Your task to perform on an android device: Is it going to rain this weekend? Image 0: 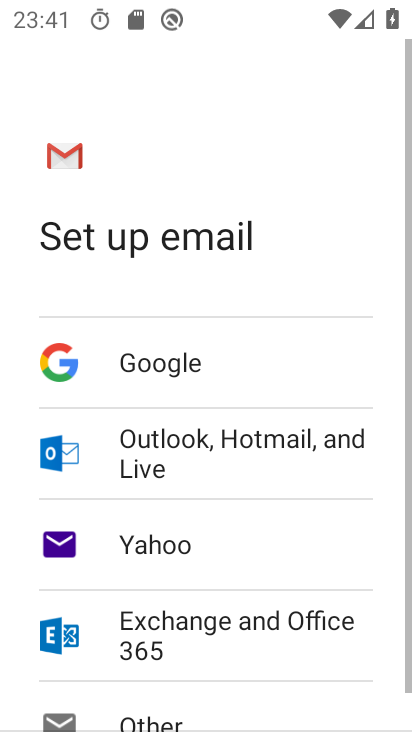
Step 0: press home button
Your task to perform on an android device: Is it going to rain this weekend? Image 1: 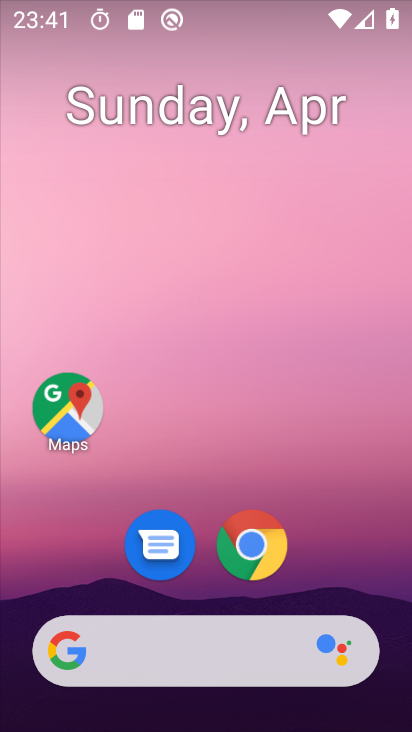
Step 1: drag from (326, 542) to (326, 315)
Your task to perform on an android device: Is it going to rain this weekend? Image 2: 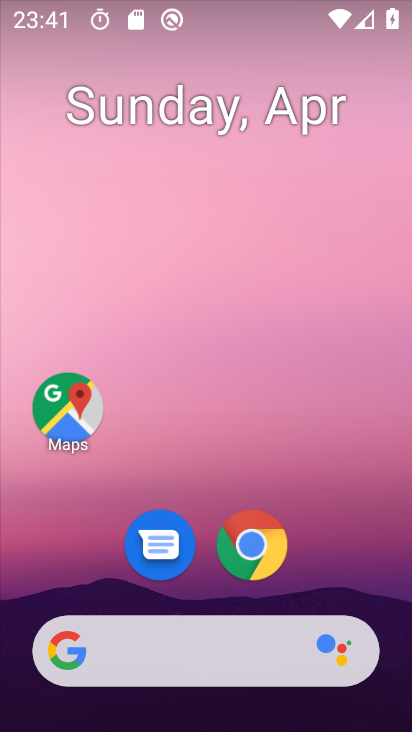
Step 2: drag from (341, 533) to (330, 228)
Your task to perform on an android device: Is it going to rain this weekend? Image 3: 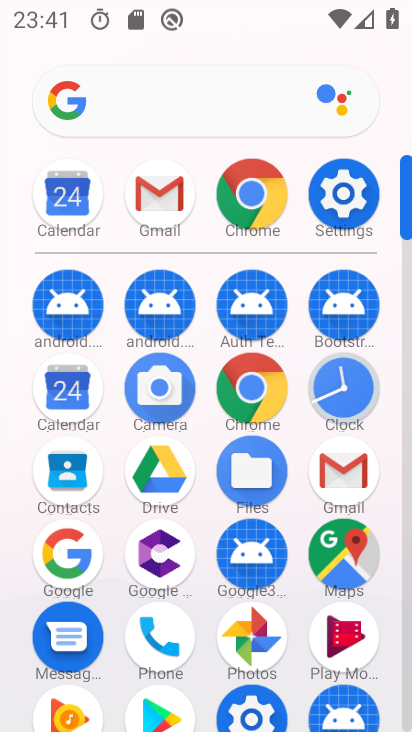
Step 3: click (259, 188)
Your task to perform on an android device: Is it going to rain this weekend? Image 4: 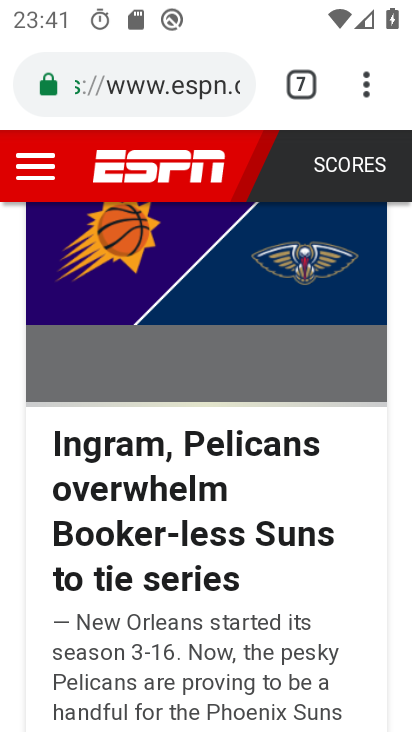
Step 4: click (348, 84)
Your task to perform on an android device: Is it going to rain this weekend? Image 5: 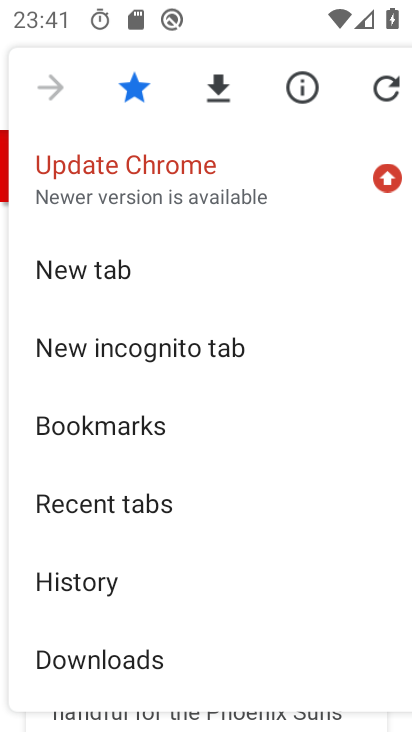
Step 5: click (133, 263)
Your task to perform on an android device: Is it going to rain this weekend? Image 6: 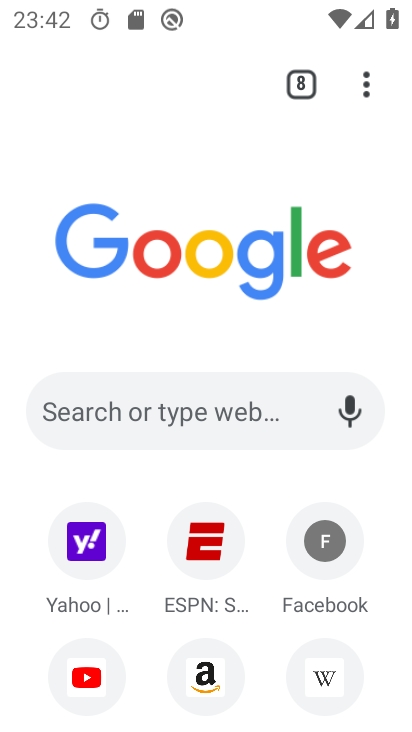
Step 6: click (228, 386)
Your task to perform on an android device: Is it going to rain this weekend? Image 7: 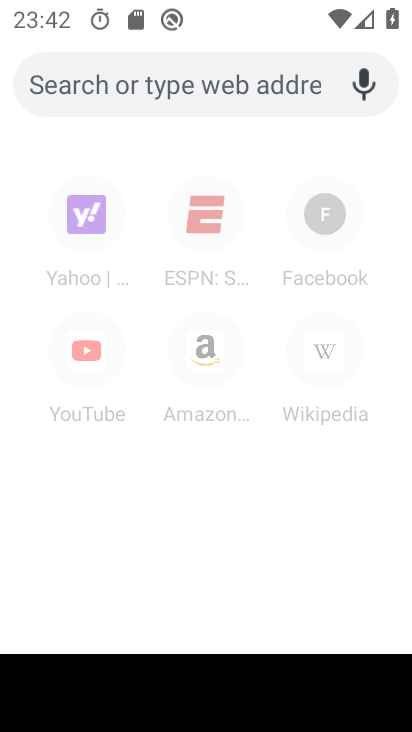
Step 7: type "Is it going to rain this weekend"
Your task to perform on an android device: Is it going to rain this weekend? Image 8: 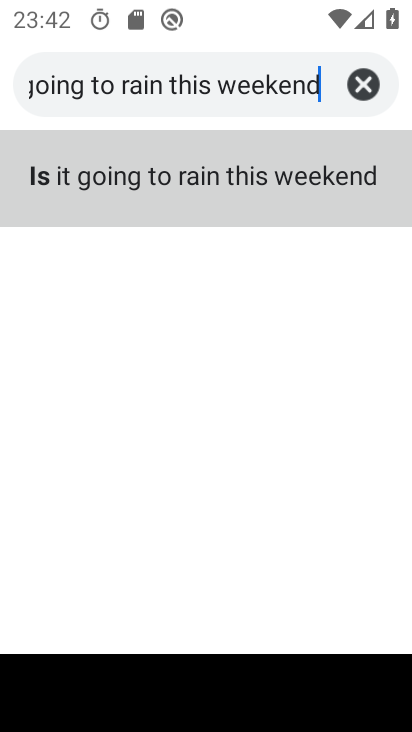
Step 8: click (303, 171)
Your task to perform on an android device: Is it going to rain this weekend? Image 9: 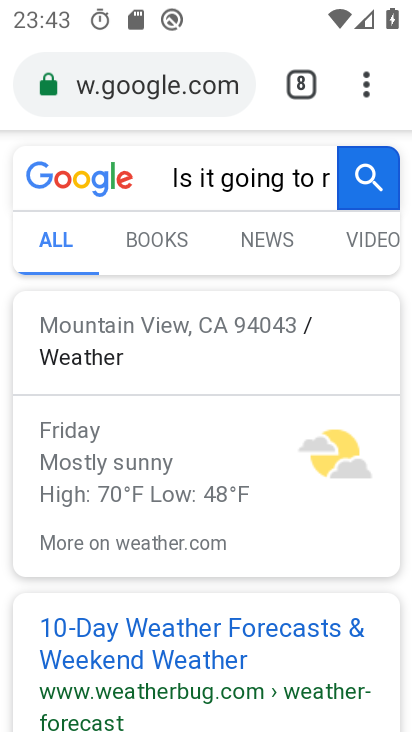
Step 9: task complete